Your task to perform on an android device: Open Chrome and go to settings Image 0: 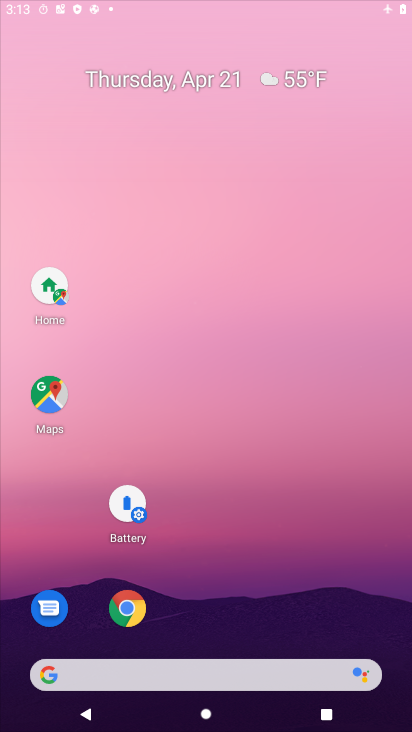
Step 0: click (300, 67)
Your task to perform on an android device: Open Chrome and go to settings Image 1: 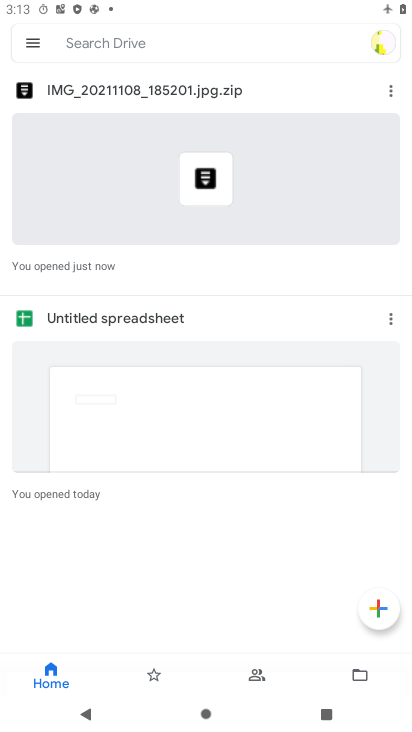
Step 1: press home button
Your task to perform on an android device: Open Chrome and go to settings Image 2: 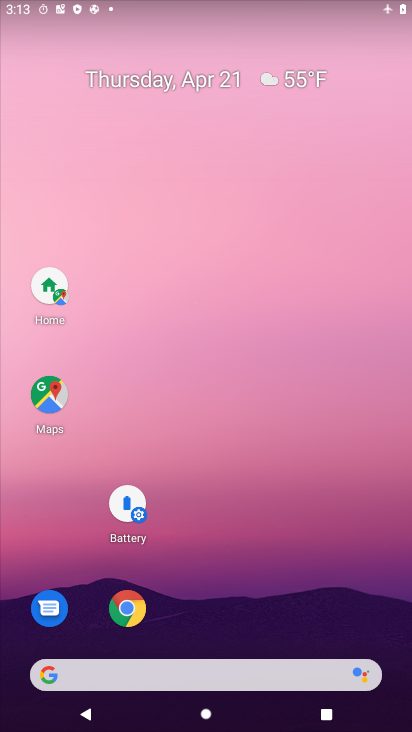
Step 2: drag from (306, 448) to (313, 99)
Your task to perform on an android device: Open Chrome and go to settings Image 3: 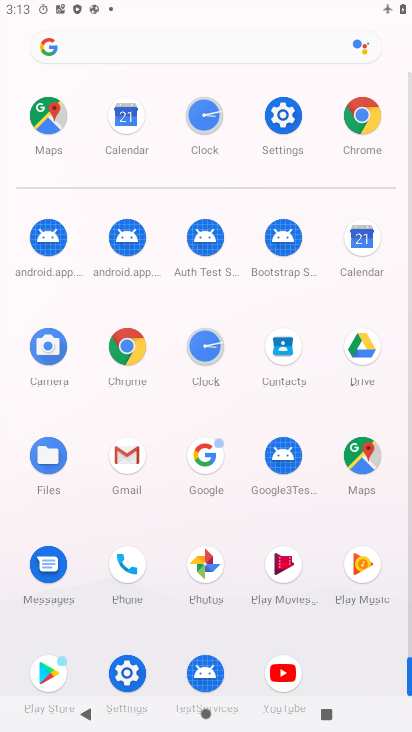
Step 3: click (297, 114)
Your task to perform on an android device: Open Chrome and go to settings Image 4: 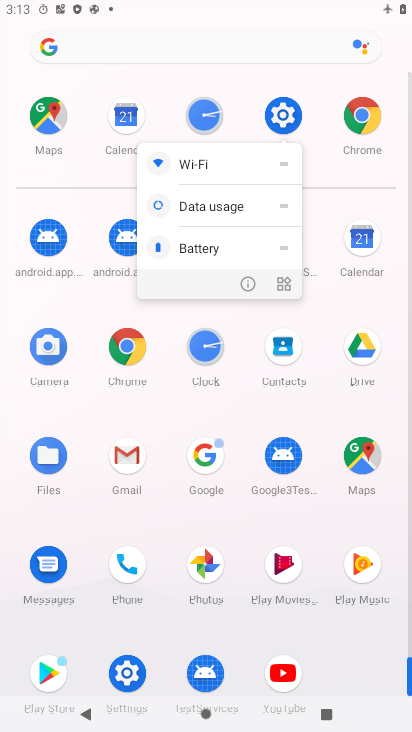
Step 4: click (358, 104)
Your task to perform on an android device: Open Chrome and go to settings Image 5: 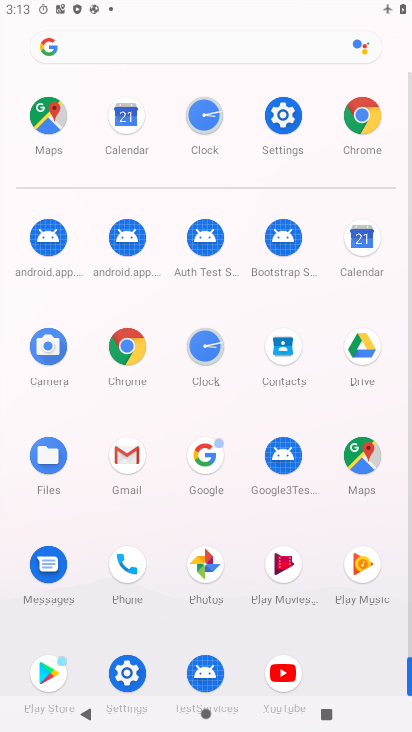
Step 5: click (363, 114)
Your task to perform on an android device: Open Chrome and go to settings Image 6: 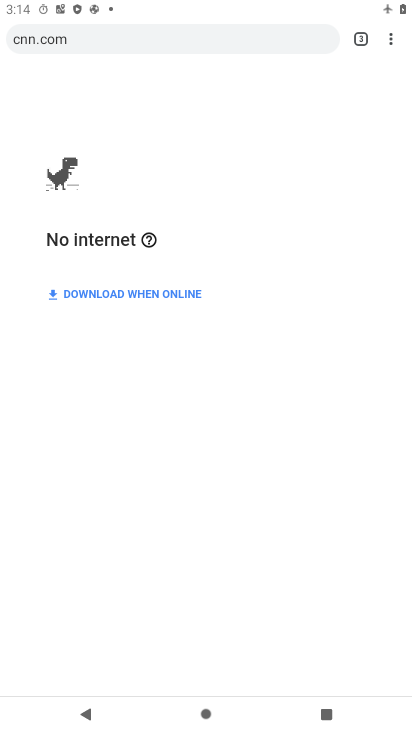
Step 6: task complete